Your task to perform on an android device: Go to Wikipedia Image 0: 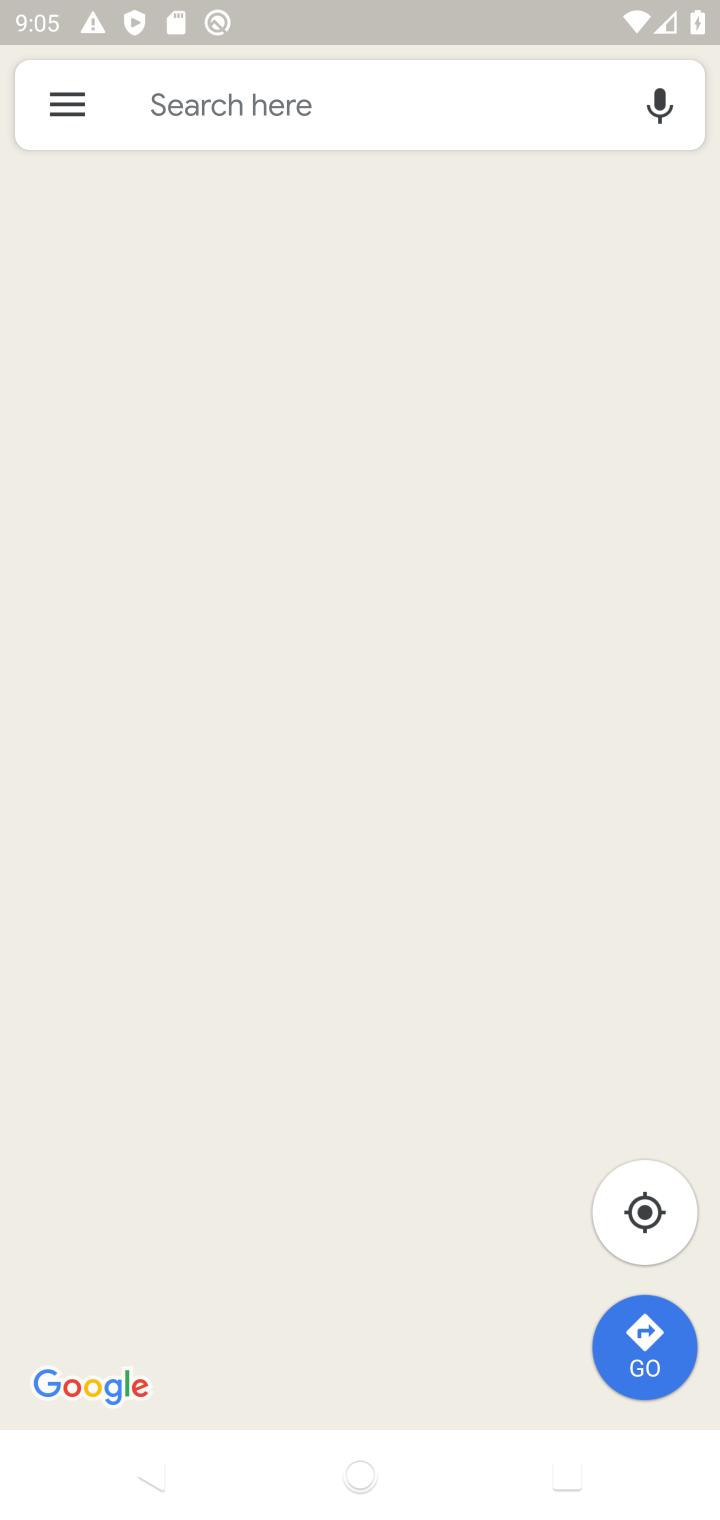
Step 0: press home button
Your task to perform on an android device: Go to Wikipedia Image 1: 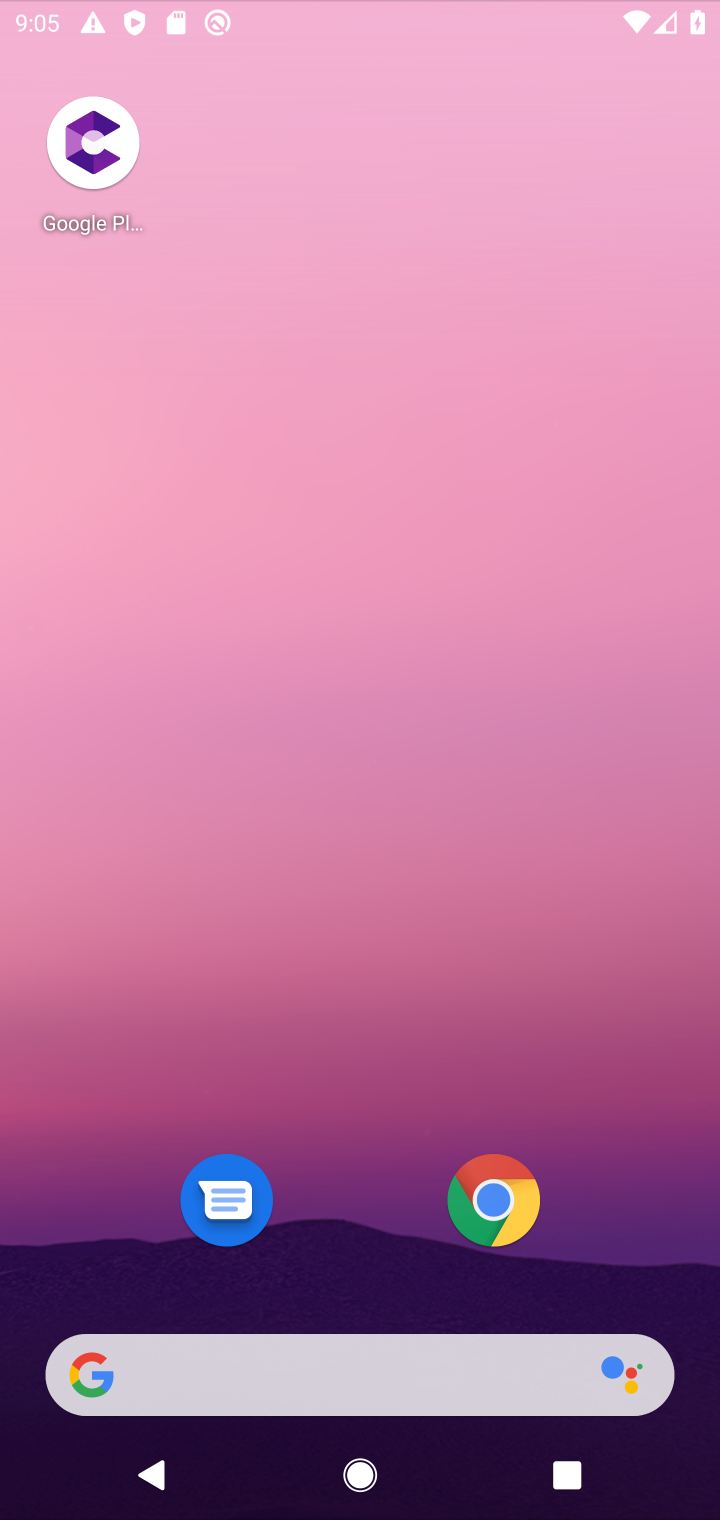
Step 1: press home button
Your task to perform on an android device: Go to Wikipedia Image 2: 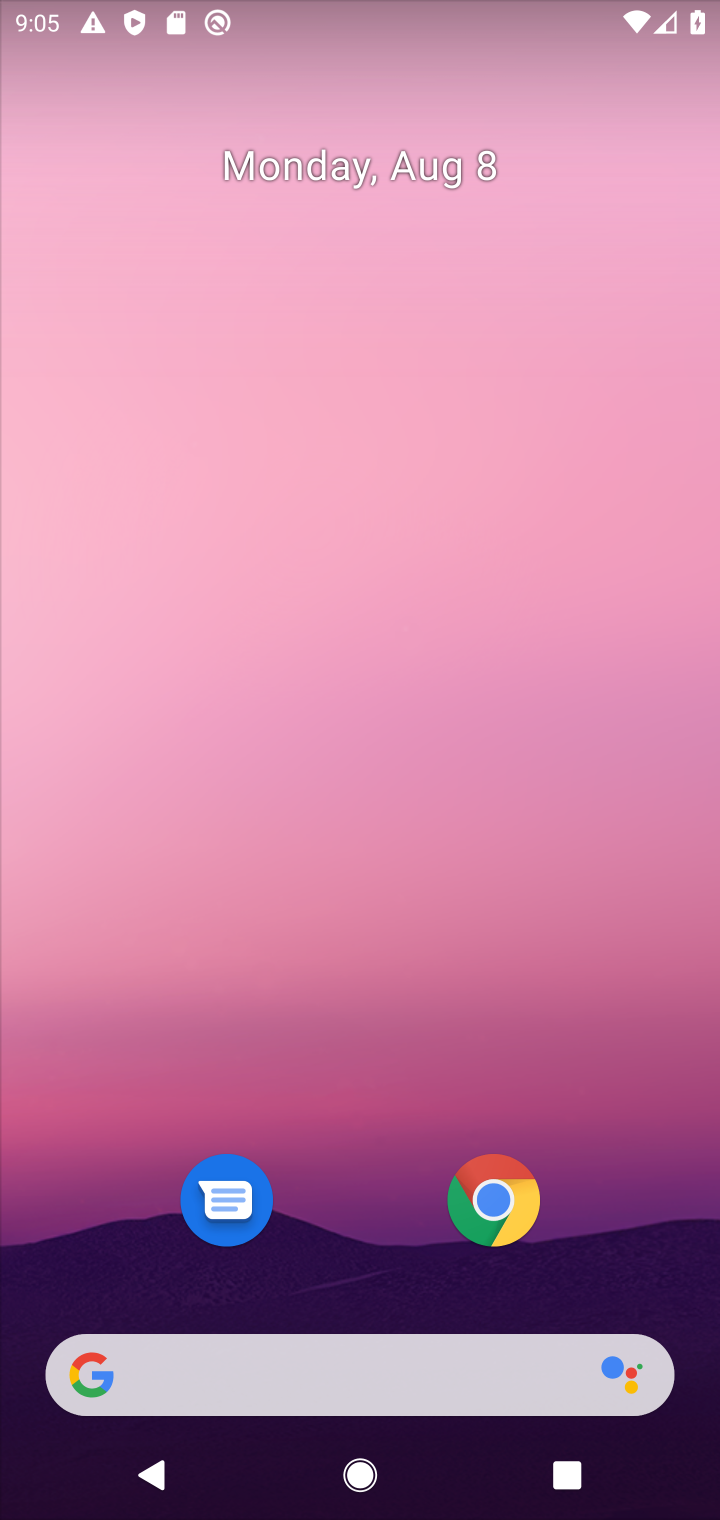
Step 2: click (502, 1205)
Your task to perform on an android device: Go to Wikipedia Image 3: 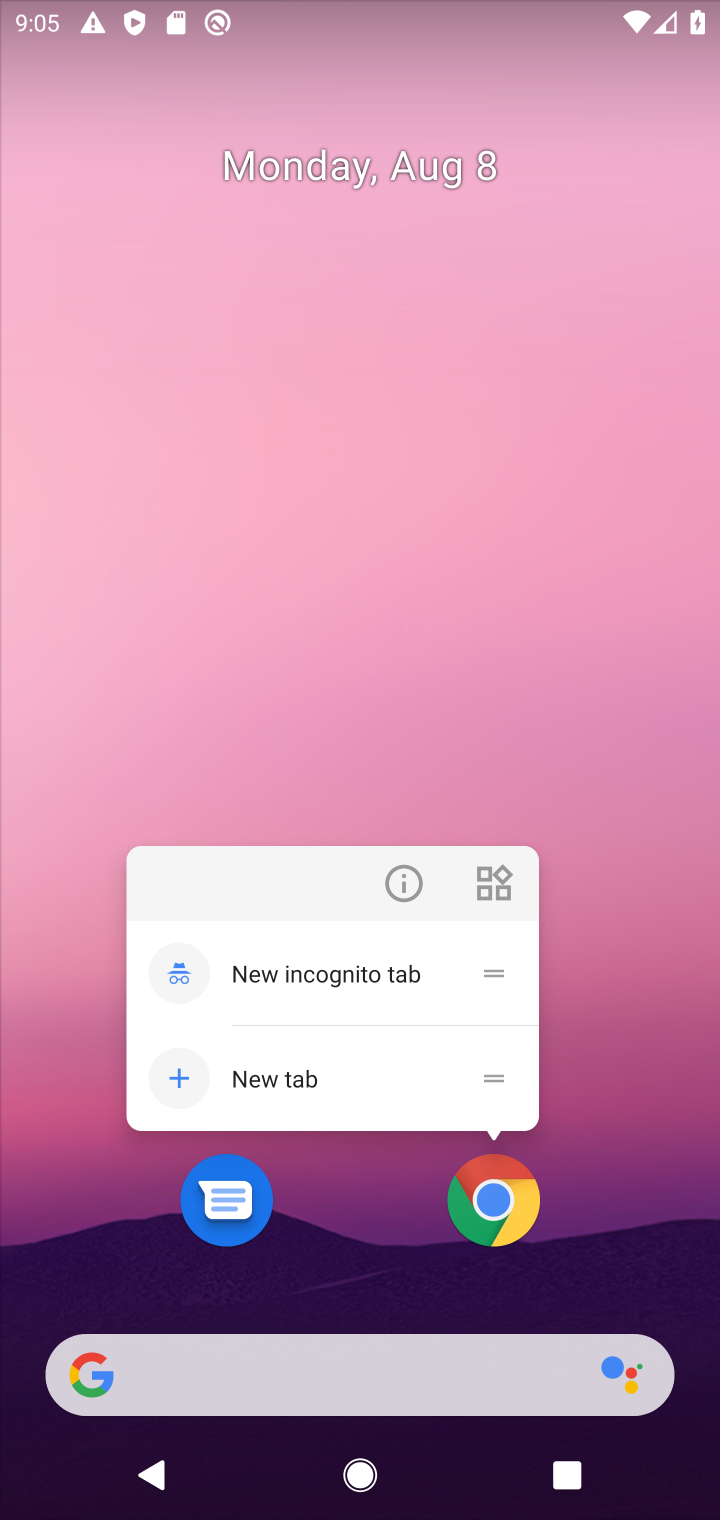
Step 3: click (506, 1218)
Your task to perform on an android device: Go to Wikipedia Image 4: 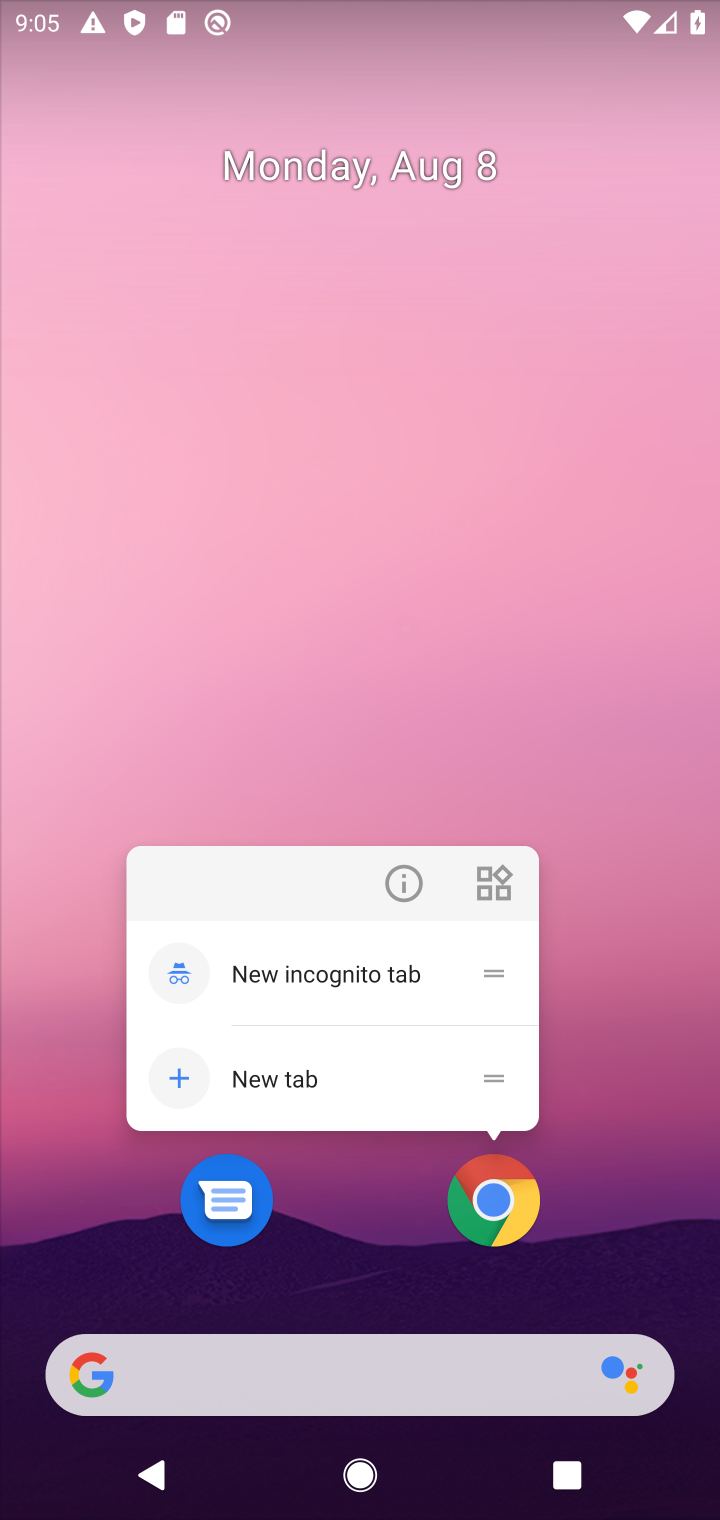
Step 4: click (506, 1198)
Your task to perform on an android device: Go to Wikipedia Image 5: 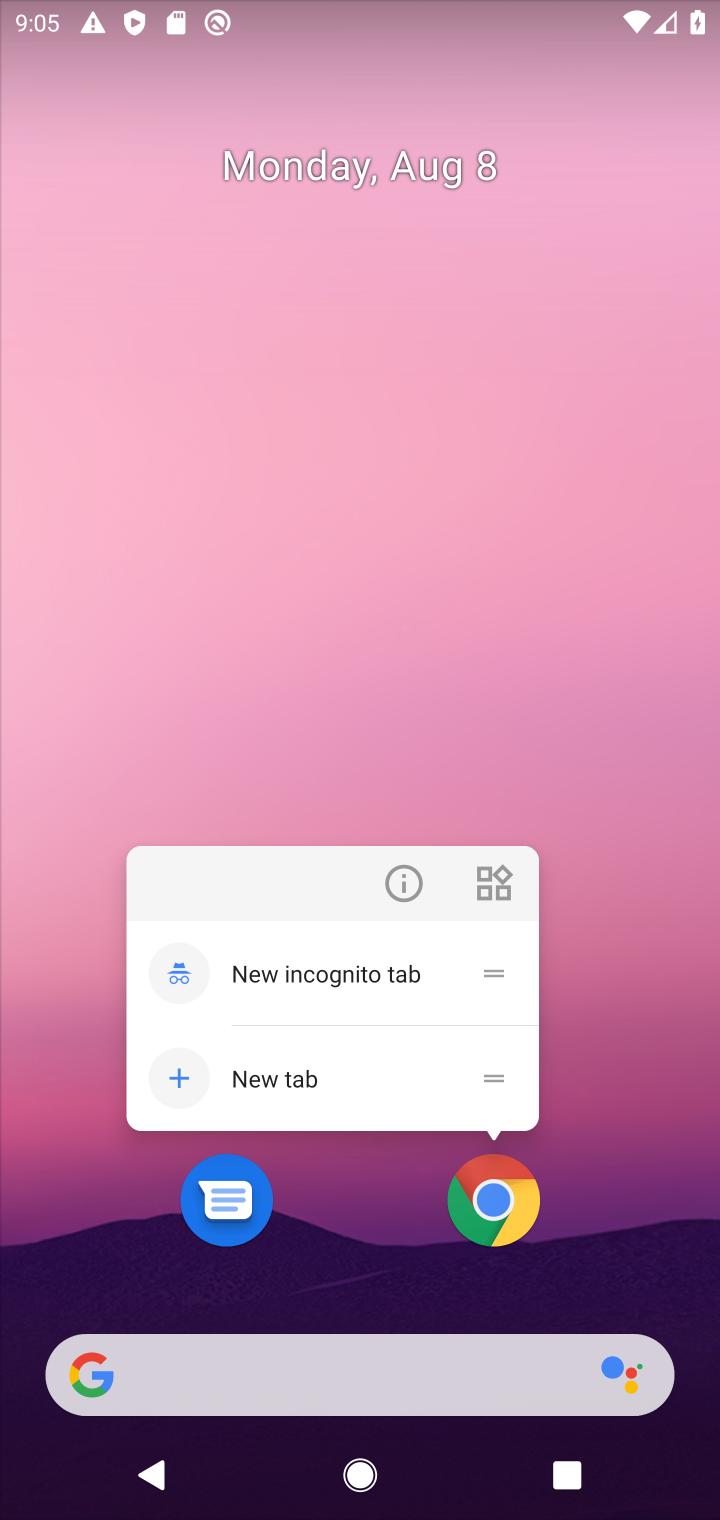
Step 5: click (504, 1190)
Your task to perform on an android device: Go to Wikipedia Image 6: 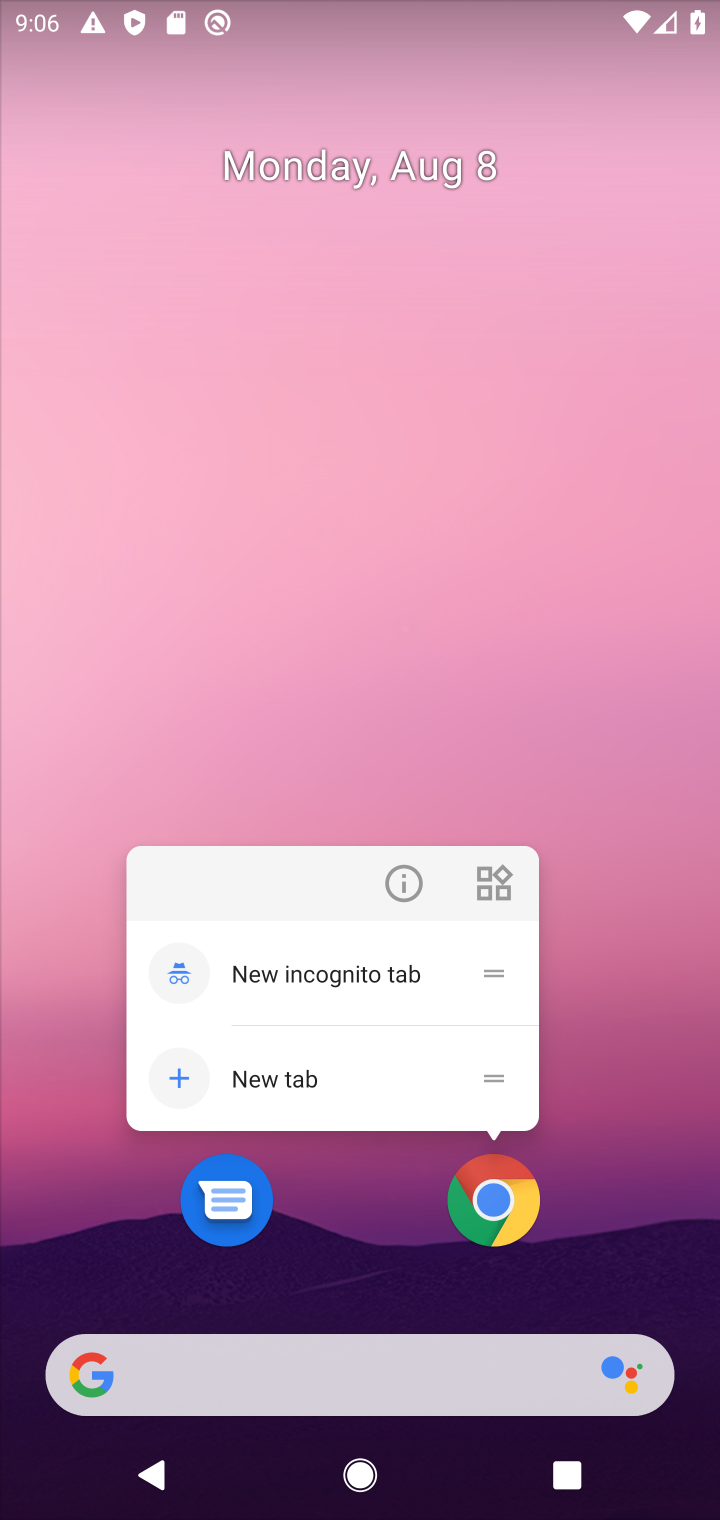
Step 6: click (506, 1207)
Your task to perform on an android device: Go to Wikipedia Image 7: 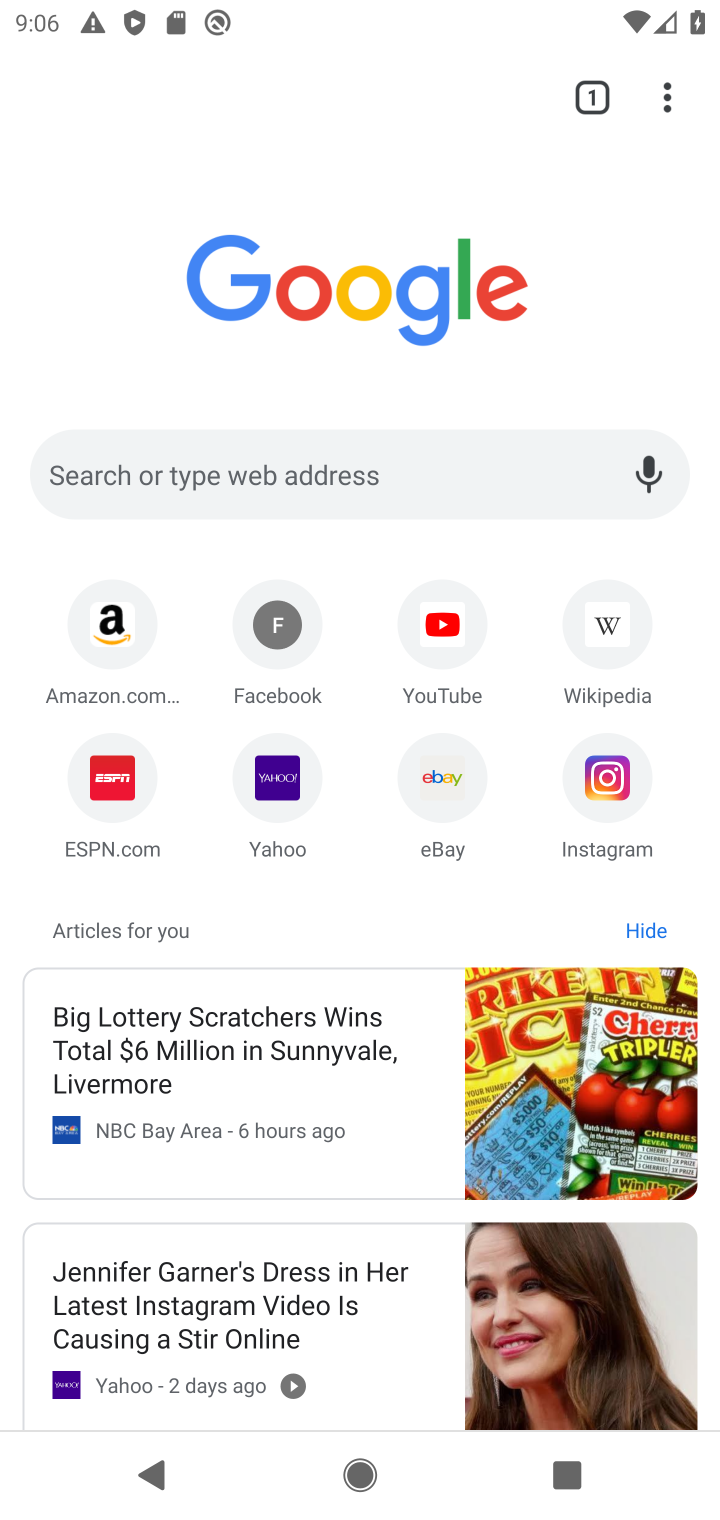
Step 7: click (607, 630)
Your task to perform on an android device: Go to Wikipedia Image 8: 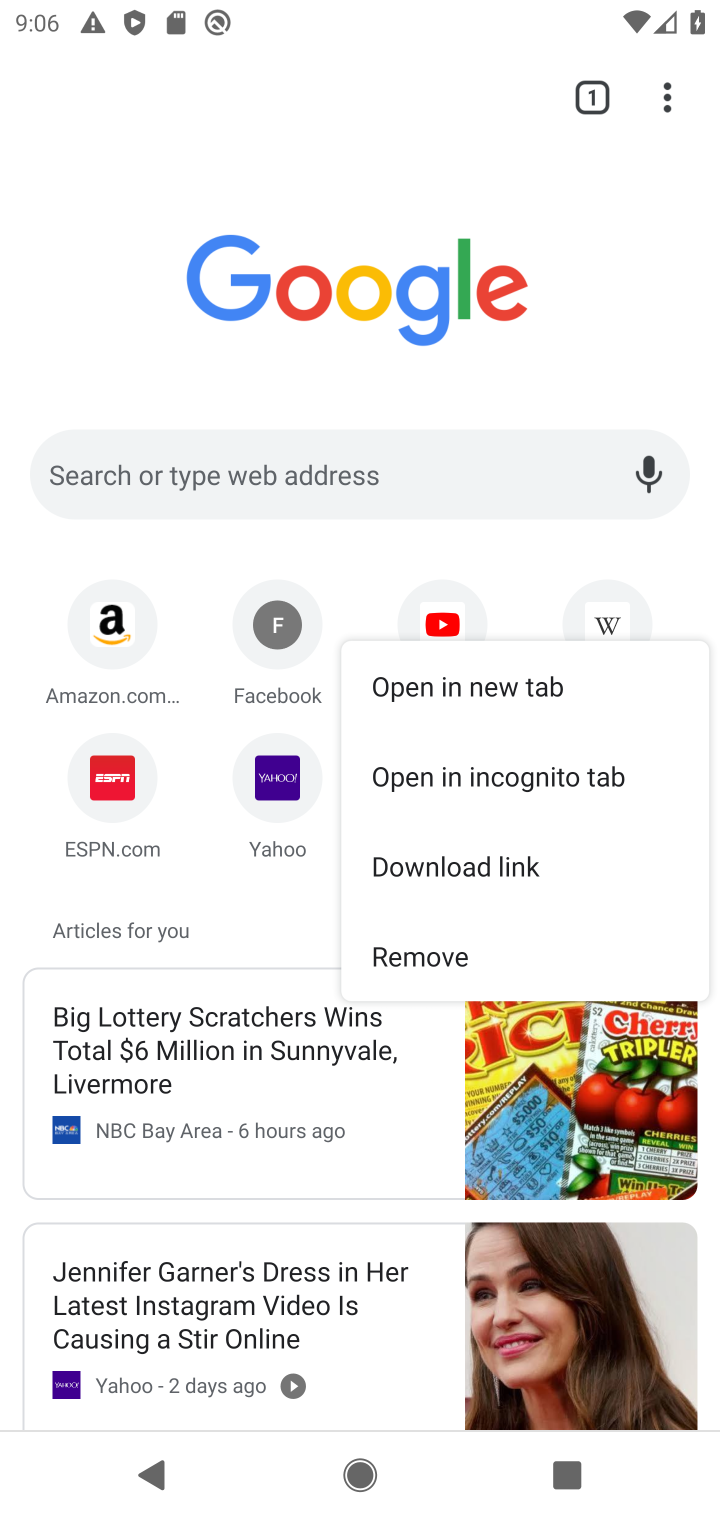
Step 8: click (607, 636)
Your task to perform on an android device: Go to Wikipedia Image 9: 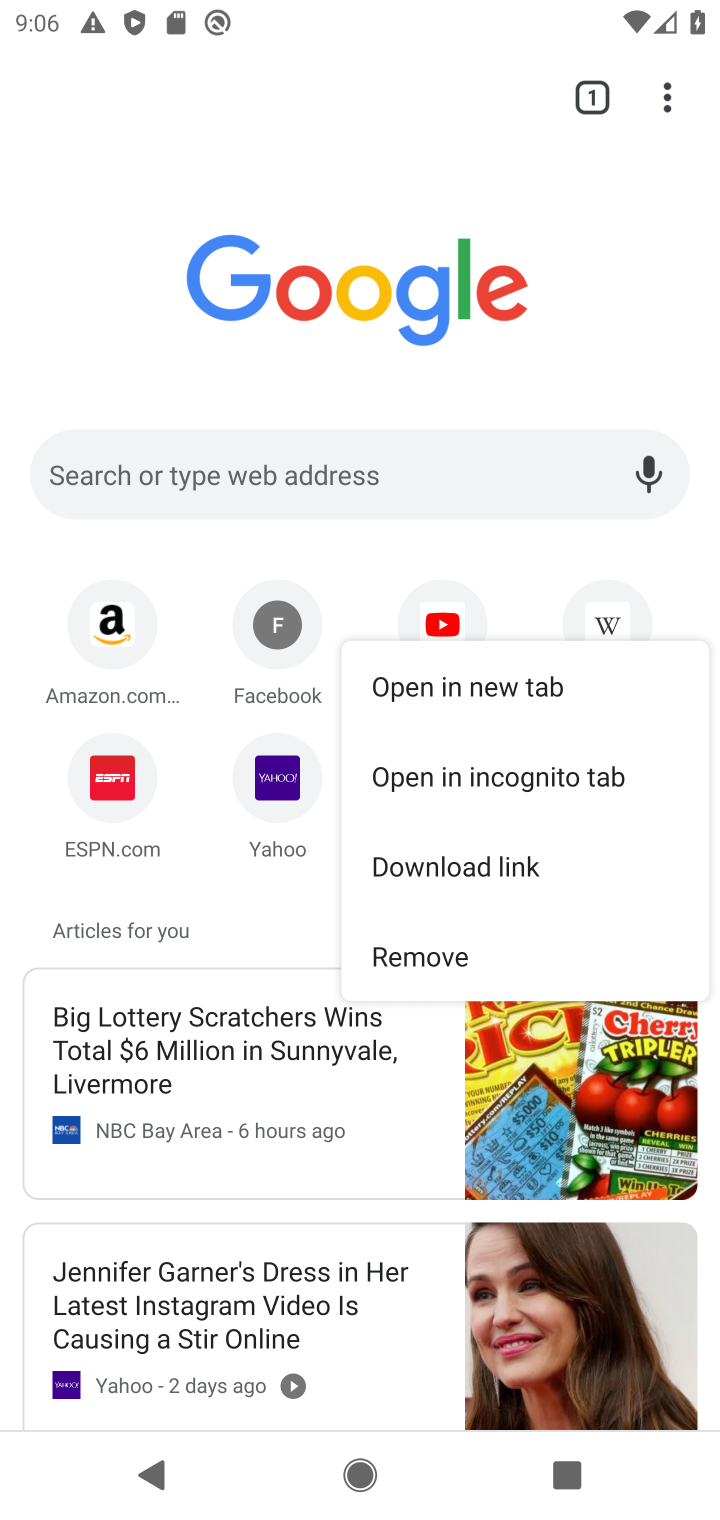
Step 9: click (607, 613)
Your task to perform on an android device: Go to Wikipedia Image 10: 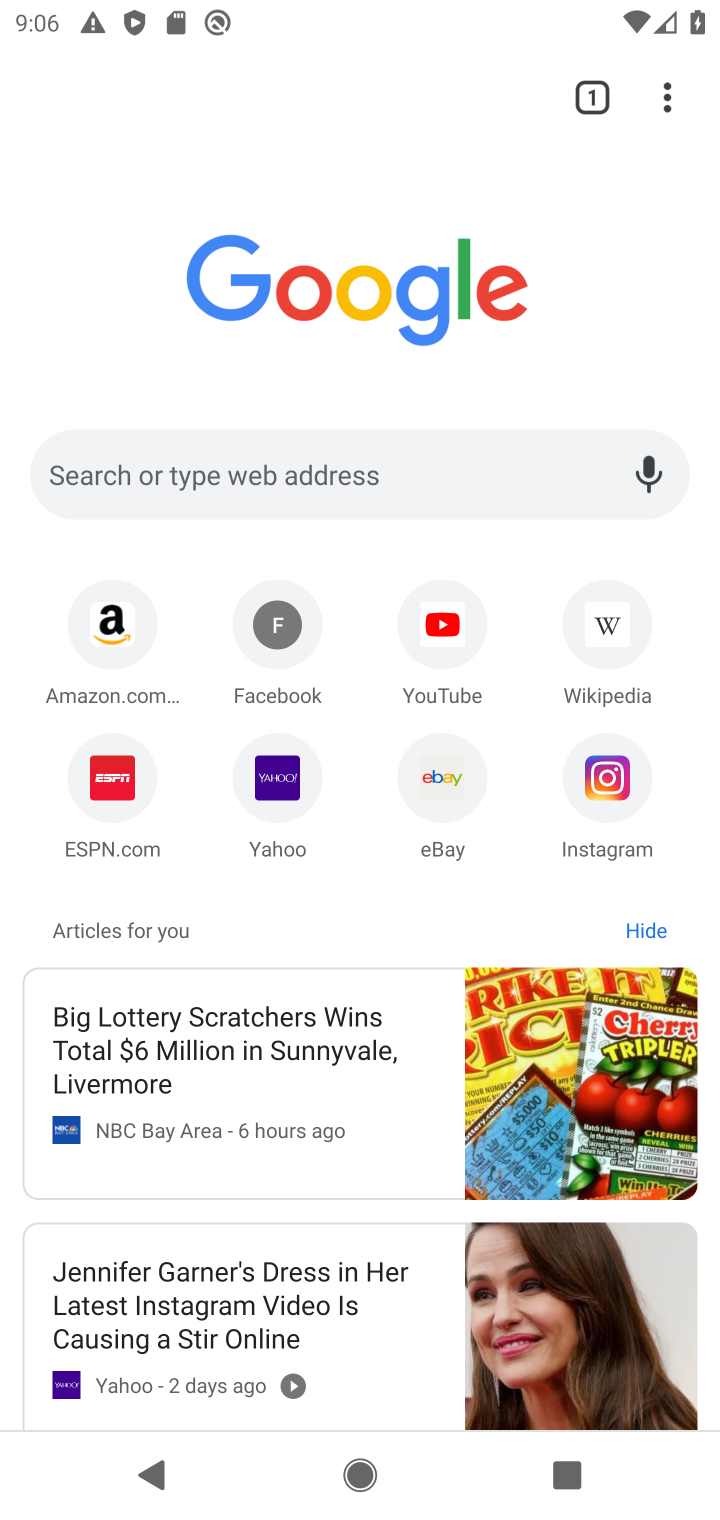
Step 10: click (603, 624)
Your task to perform on an android device: Go to Wikipedia Image 11: 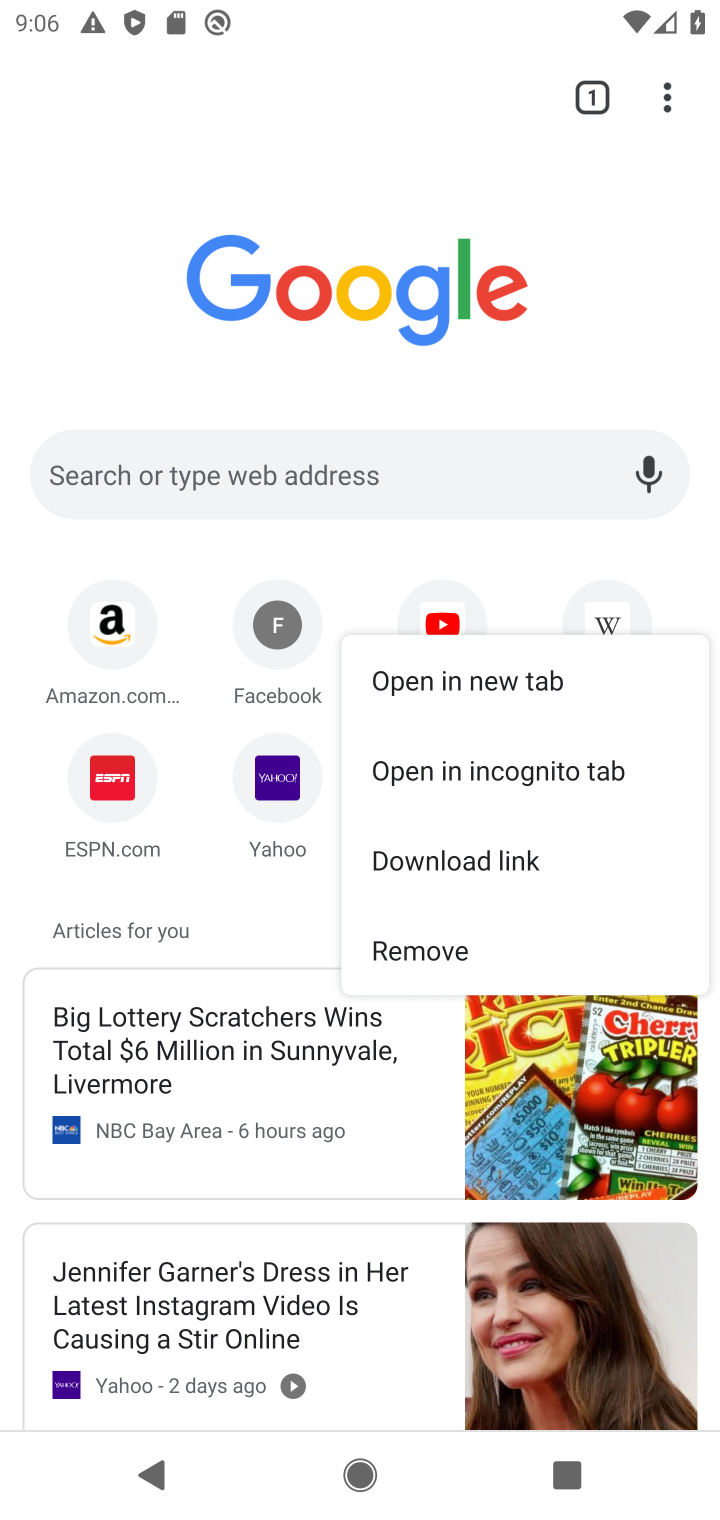
Step 11: click (613, 611)
Your task to perform on an android device: Go to Wikipedia Image 12: 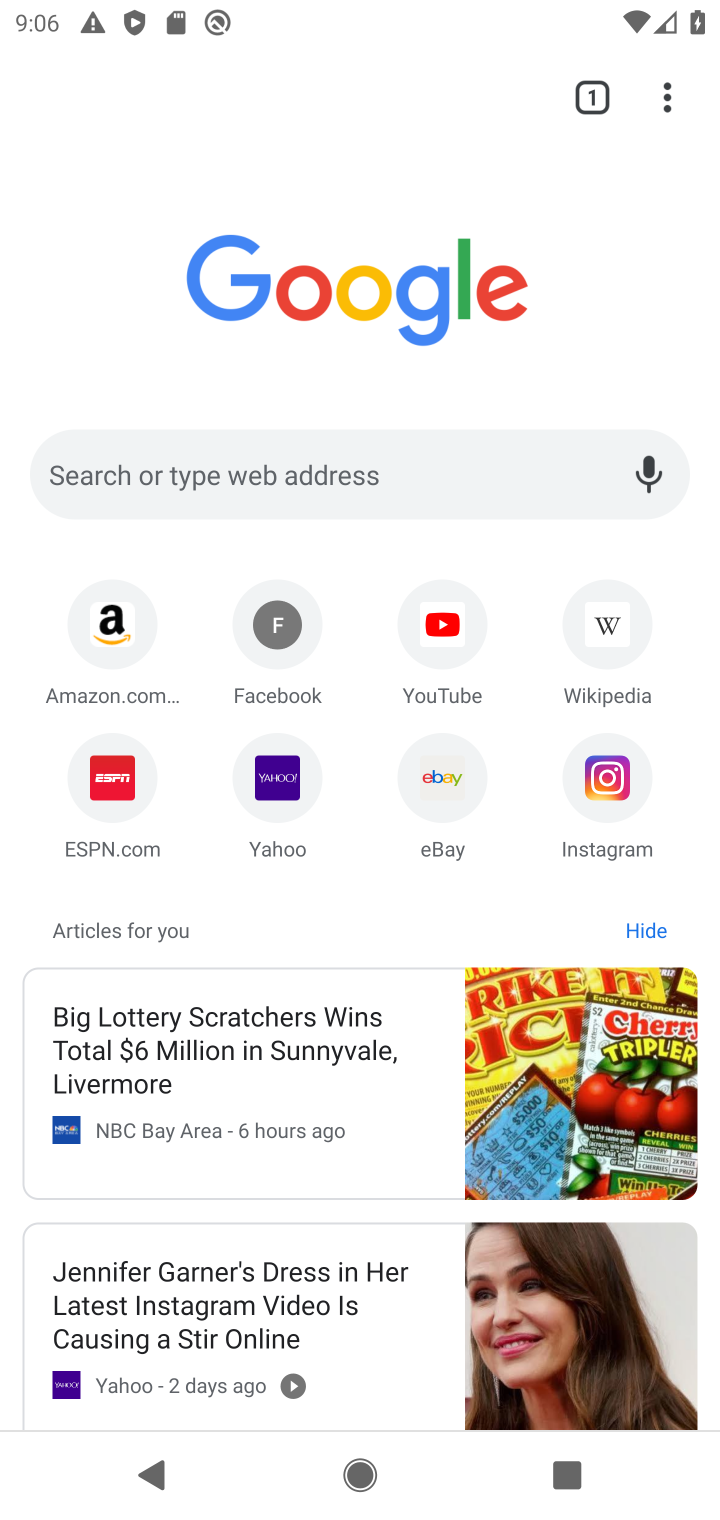
Step 12: click (599, 626)
Your task to perform on an android device: Go to Wikipedia Image 13: 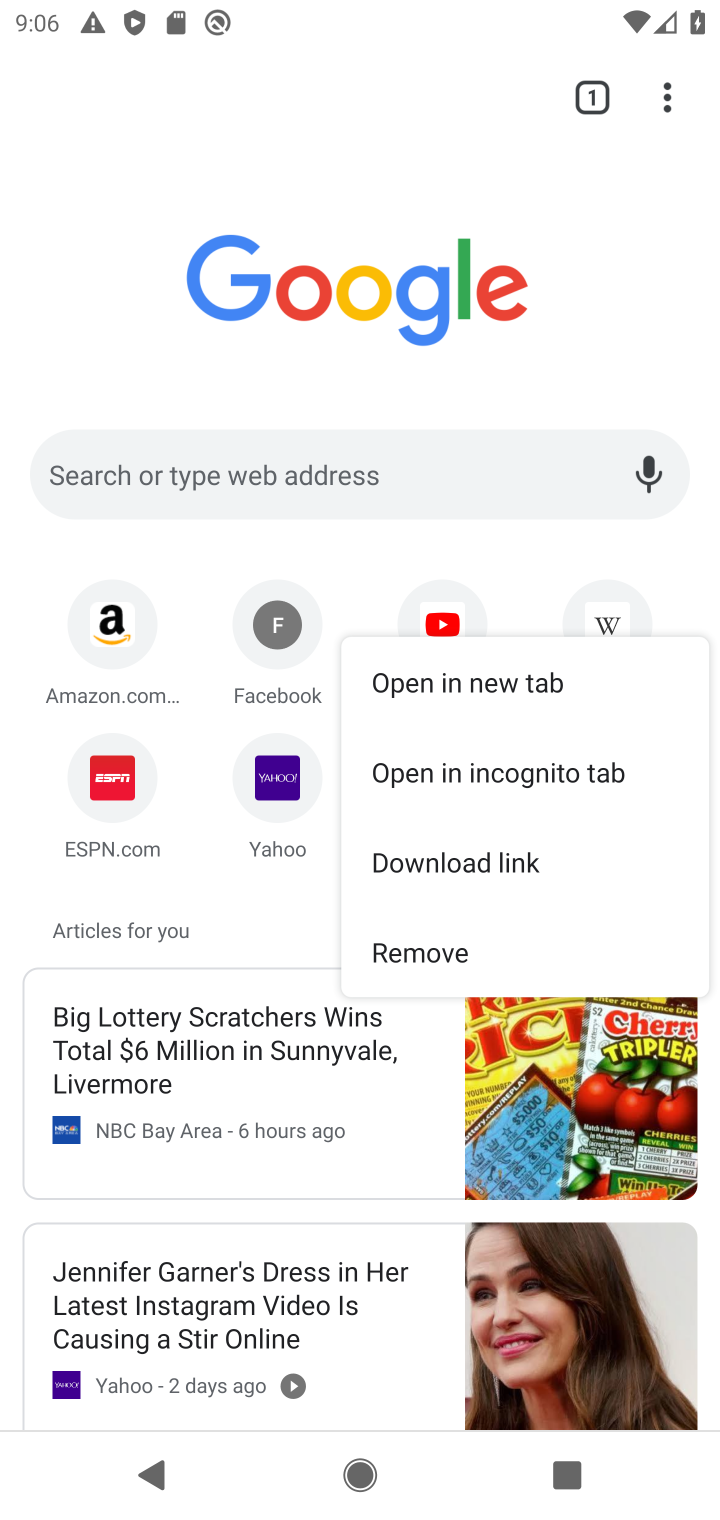
Step 13: click (601, 611)
Your task to perform on an android device: Go to Wikipedia Image 14: 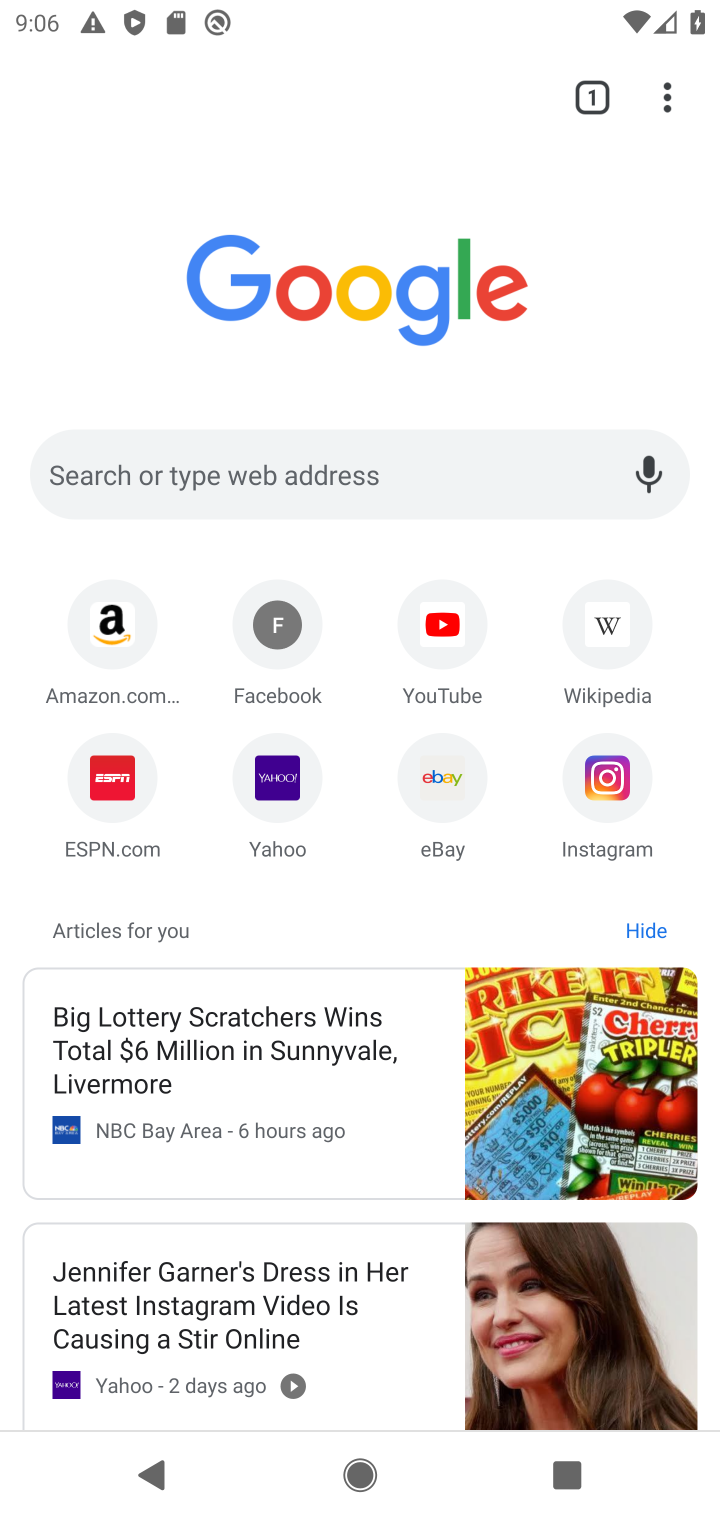
Step 14: click (602, 620)
Your task to perform on an android device: Go to Wikipedia Image 15: 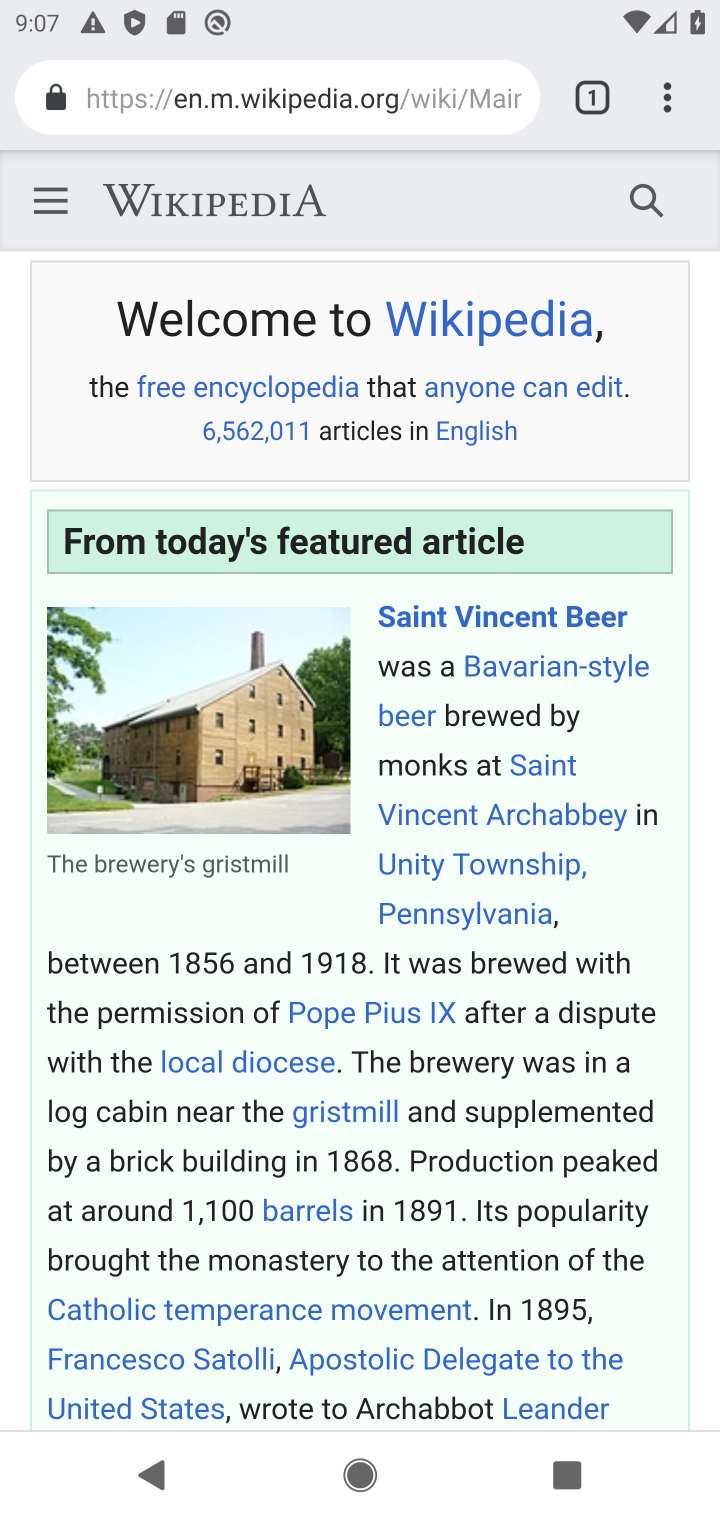
Step 15: task complete